Your task to perform on an android device: Search for hotels in Philadelphia Image 0: 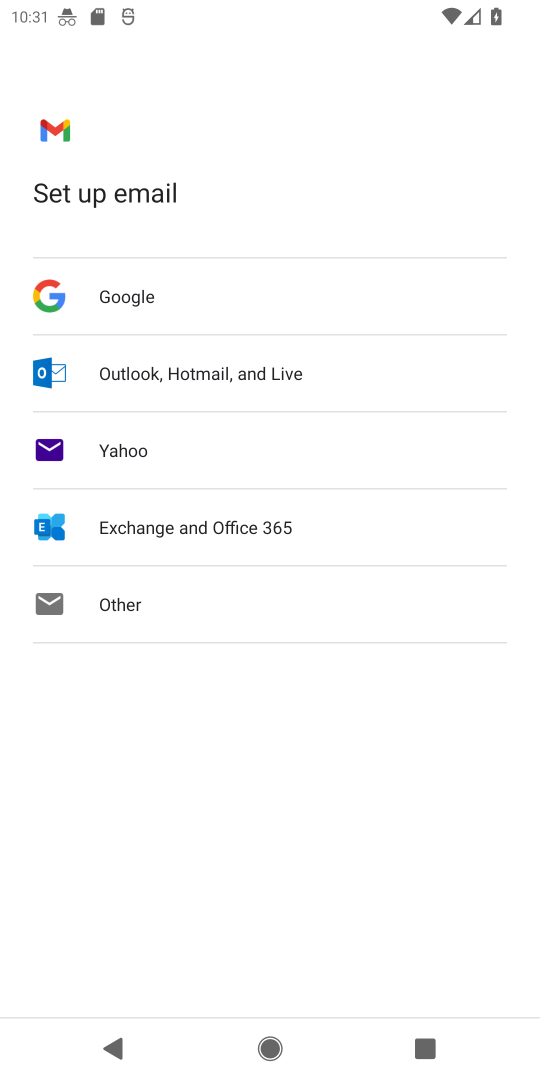
Step 0: press home button
Your task to perform on an android device: Search for hotels in Philadelphia Image 1: 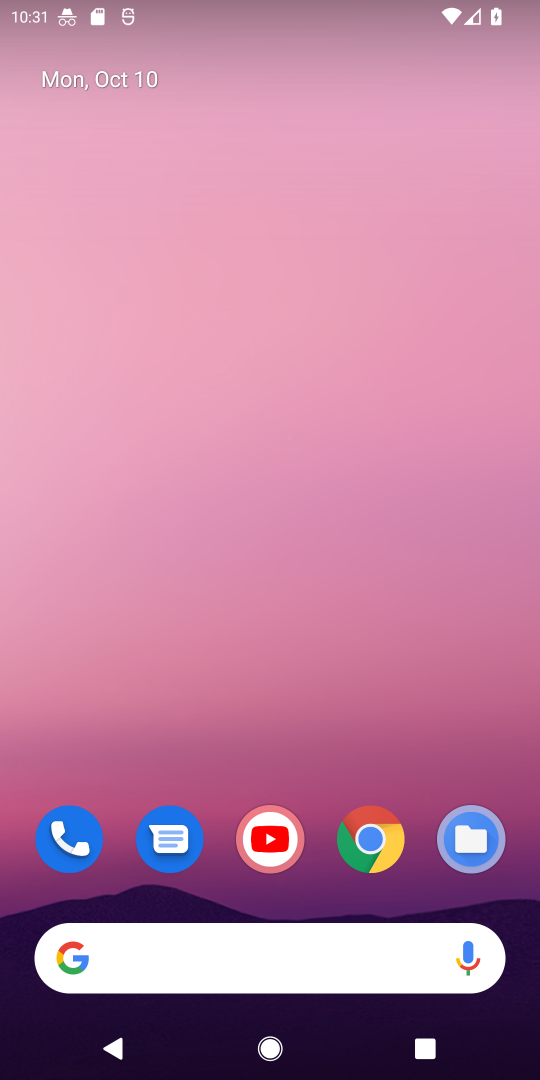
Step 1: drag from (334, 908) to (176, 2)
Your task to perform on an android device: Search for hotels in Philadelphia Image 2: 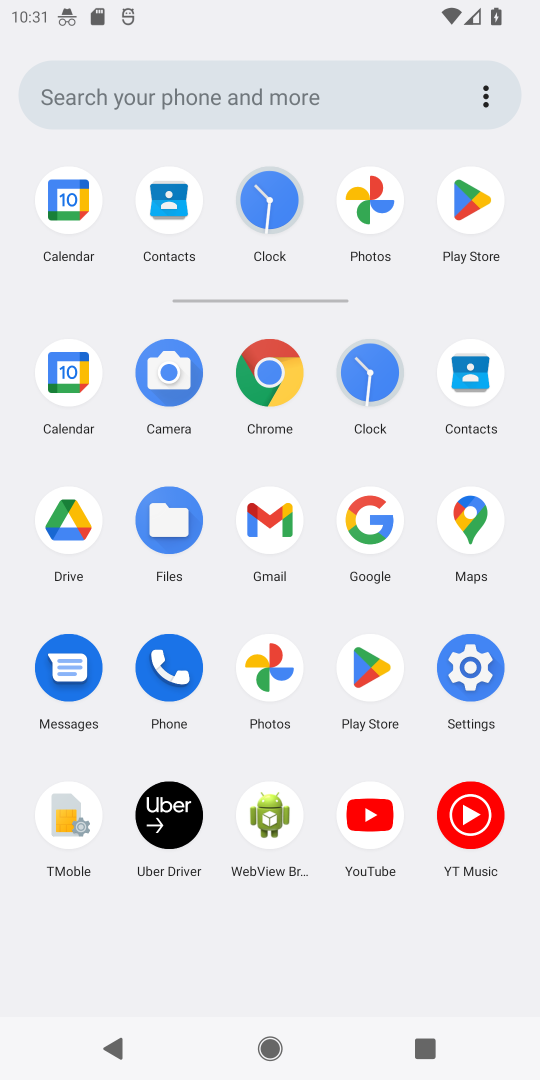
Step 2: click (269, 366)
Your task to perform on an android device: Search for hotels in Philadelphia Image 3: 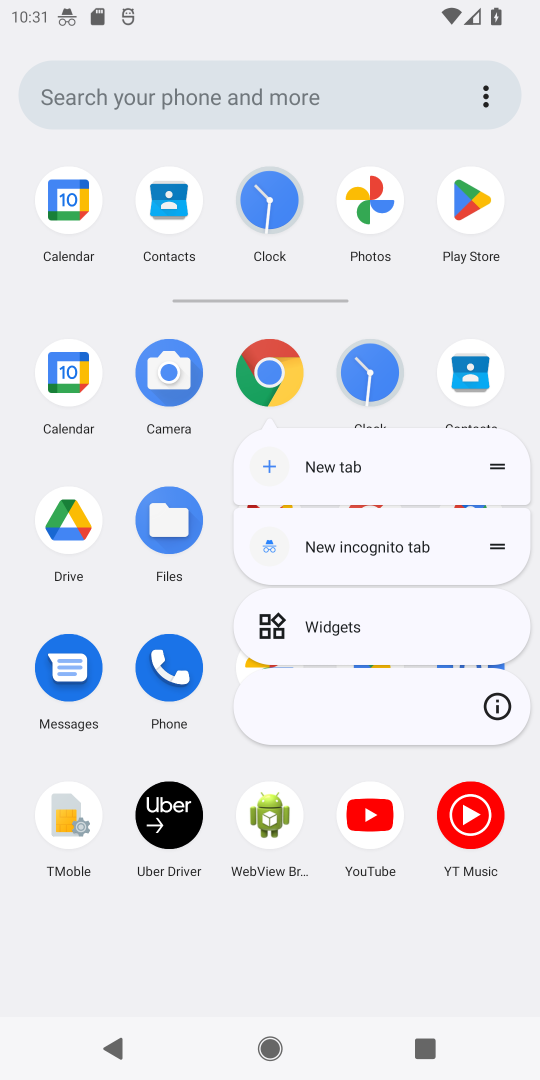
Step 3: click (278, 380)
Your task to perform on an android device: Search for hotels in Philadelphia Image 4: 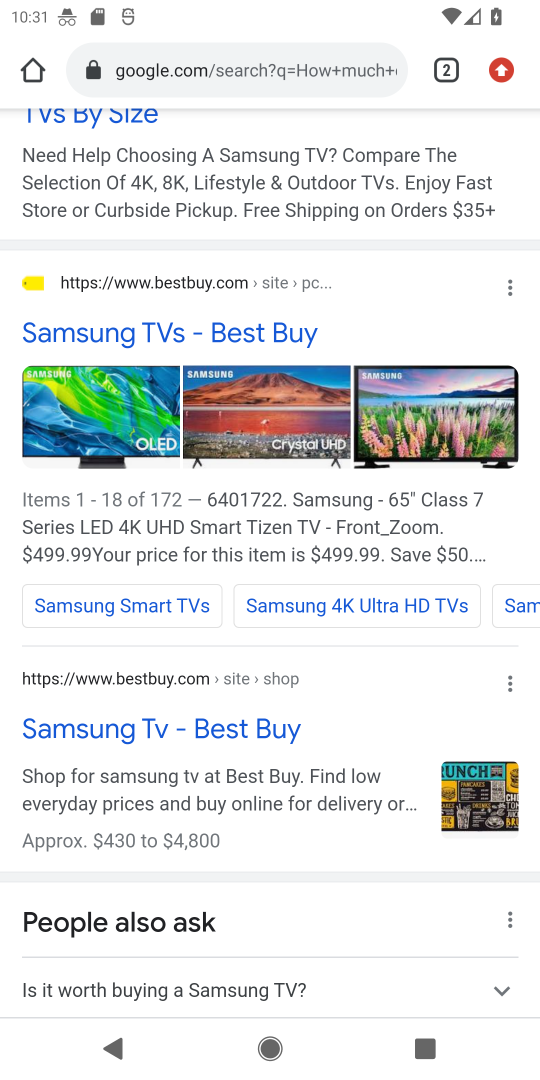
Step 4: click (246, 69)
Your task to perform on an android device: Search for hotels in Philadelphia Image 5: 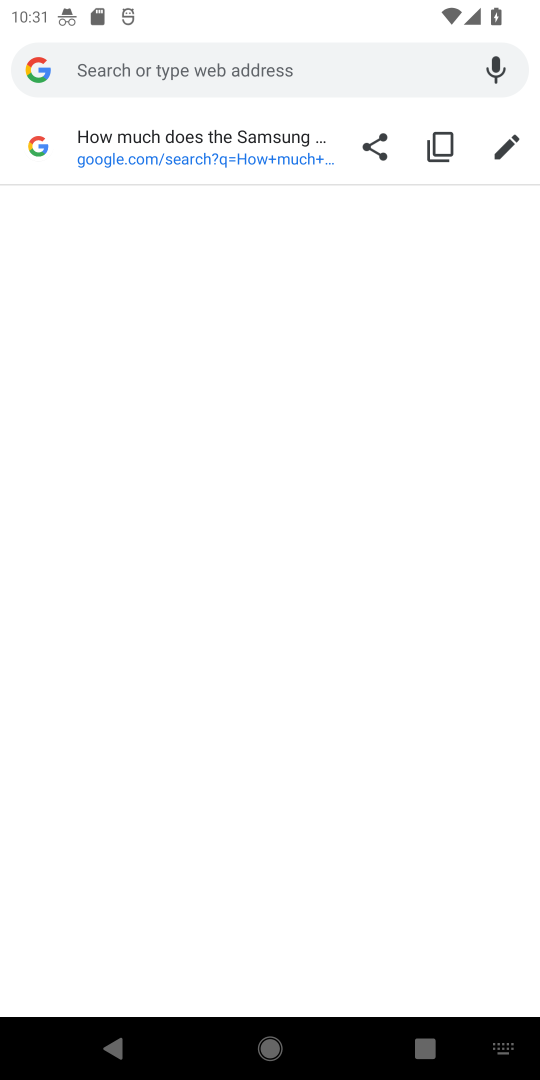
Step 5: type "hotels in Philadelphia"
Your task to perform on an android device: Search for hotels in Philadelphia Image 6: 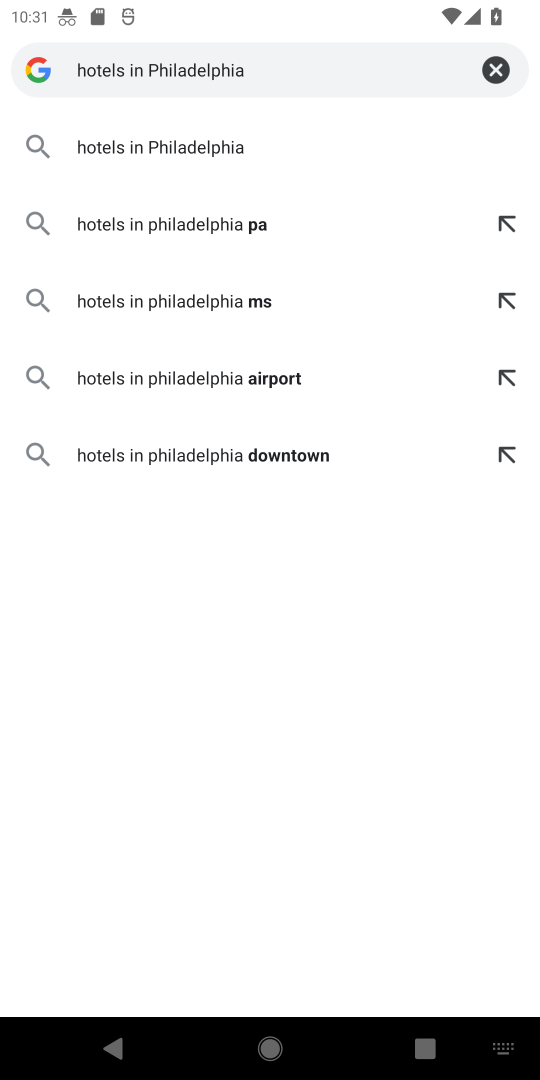
Step 6: press enter
Your task to perform on an android device: Search for hotels in Philadelphia Image 7: 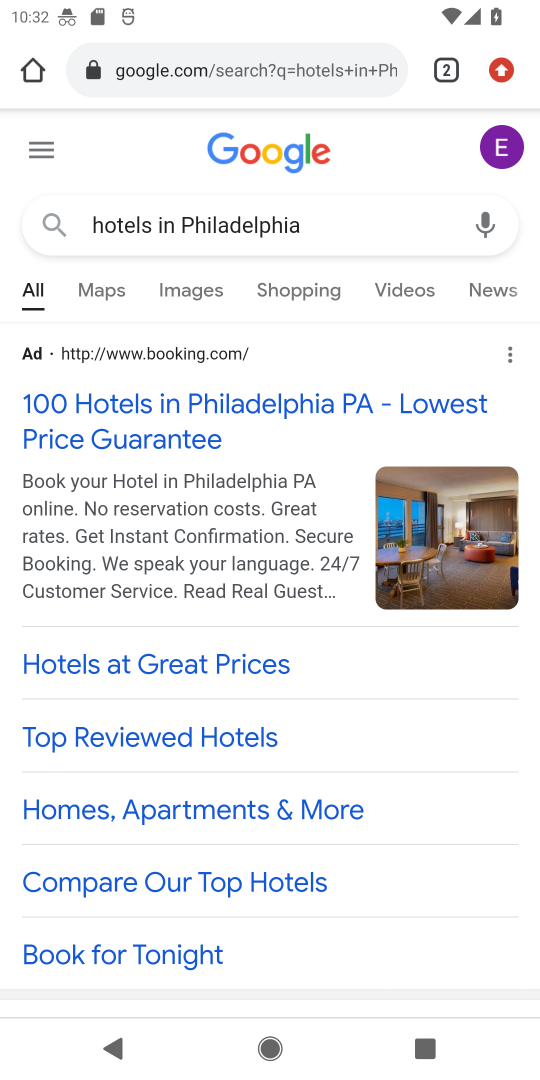
Step 7: task complete